Your task to perform on an android device: Add "macbook pro 13 inch" to the cart on walmart Image 0: 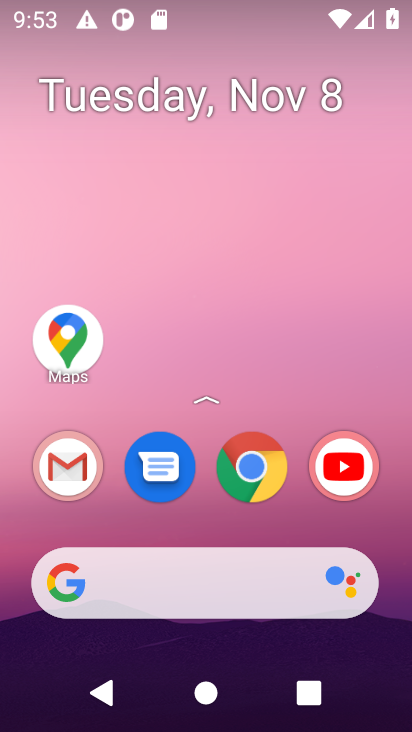
Step 0: click (106, 598)
Your task to perform on an android device: Add "macbook pro 13 inch" to the cart on walmart Image 1: 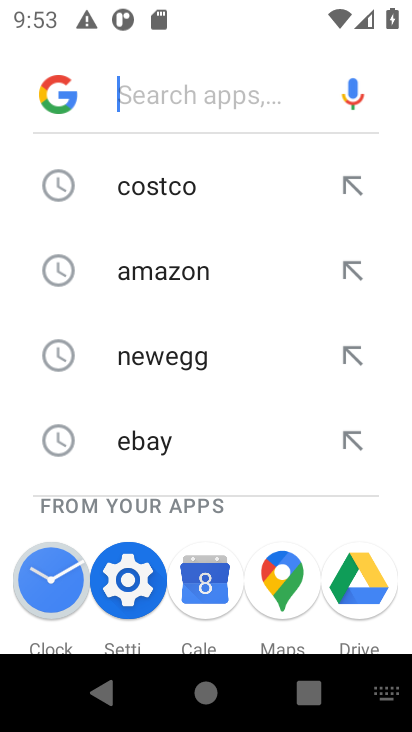
Step 1: type "walmart"
Your task to perform on an android device: Add "macbook pro 13 inch" to the cart on walmart Image 2: 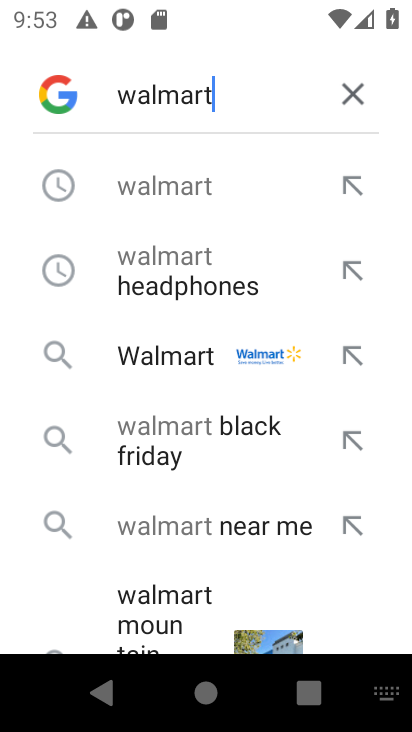
Step 2: click (178, 162)
Your task to perform on an android device: Add "macbook pro 13 inch" to the cart on walmart Image 3: 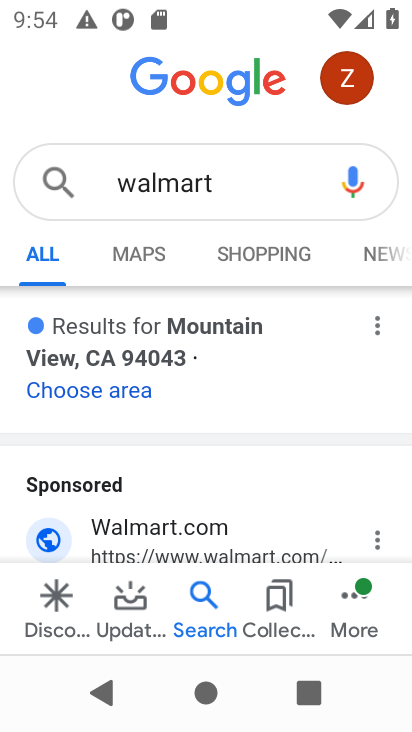
Step 3: click (140, 506)
Your task to perform on an android device: Add "macbook pro 13 inch" to the cart on walmart Image 4: 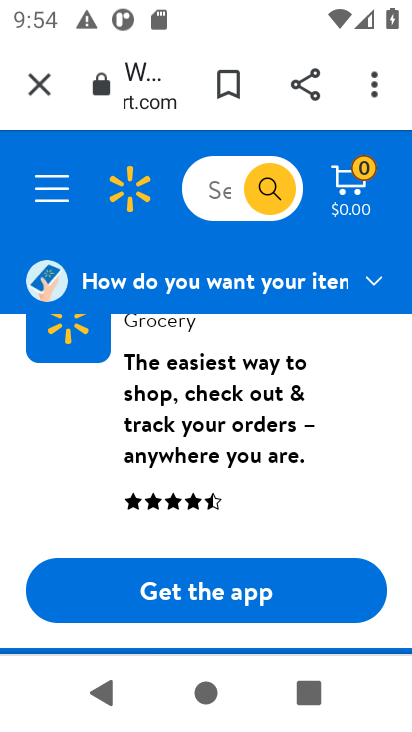
Step 4: task complete